Your task to perform on an android device: Open CNN.com Image 0: 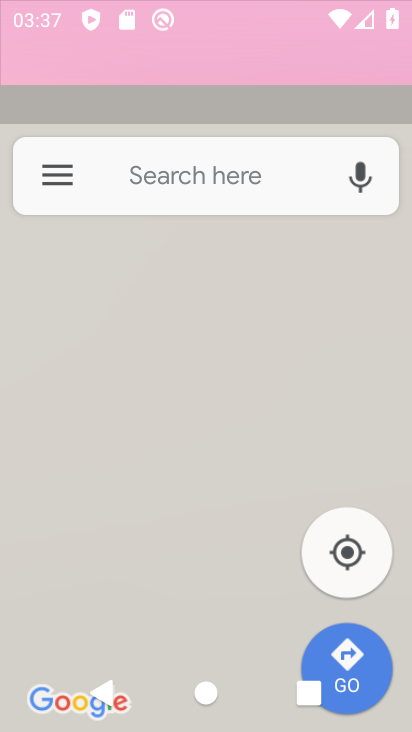
Step 0: press home button
Your task to perform on an android device: Open CNN.com Image 1: 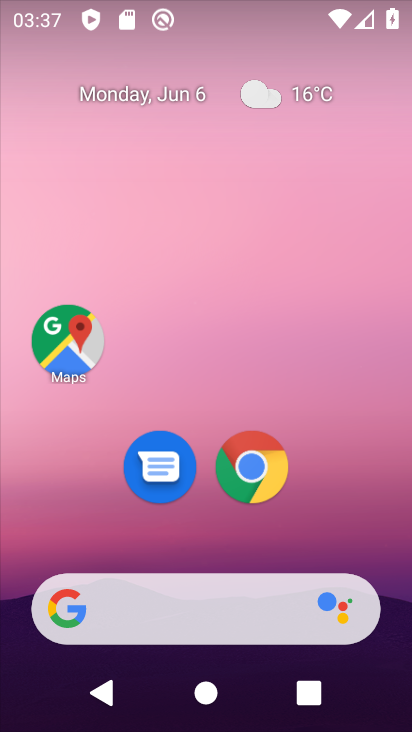
Step 1: click (251, 457)
Your task to perform on an android device: Open CNN.com Image 2: 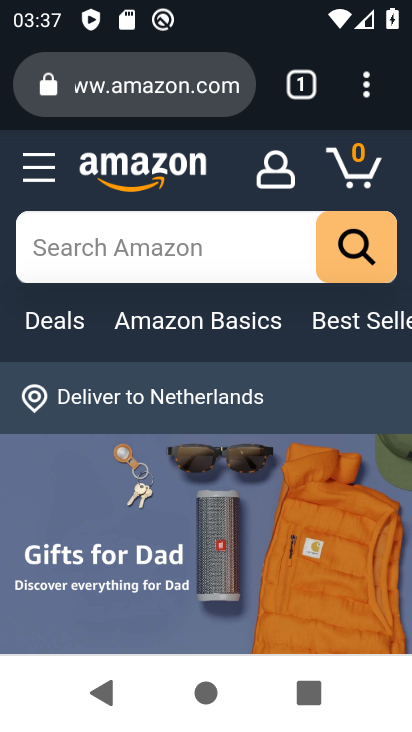
Step 2: click (303, 74)
Your task to perform on an android device: Open CNN.com Image 3: 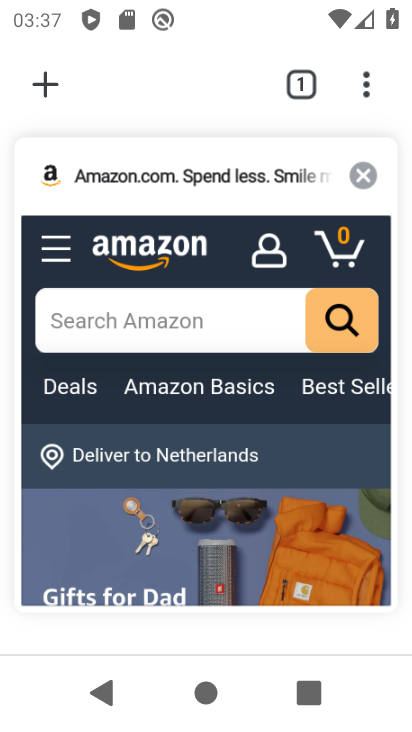
Step 3: click (365, 185)
Your task to perform on an android device: Open CNN.com Image 4: 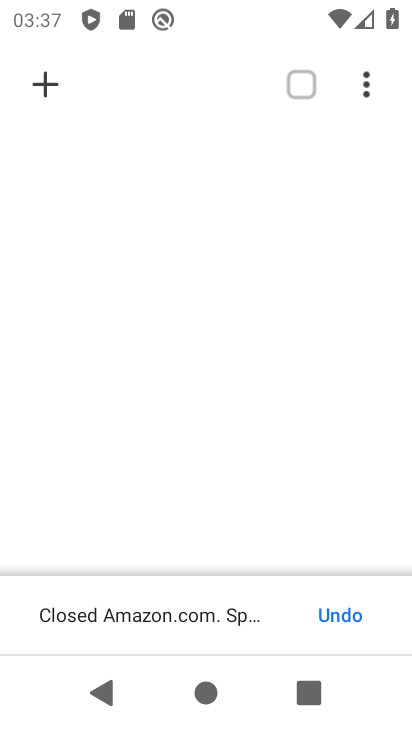
Step 4: click (56, 77)
Your task to perform on an android device: Open CNN.com Image 5: 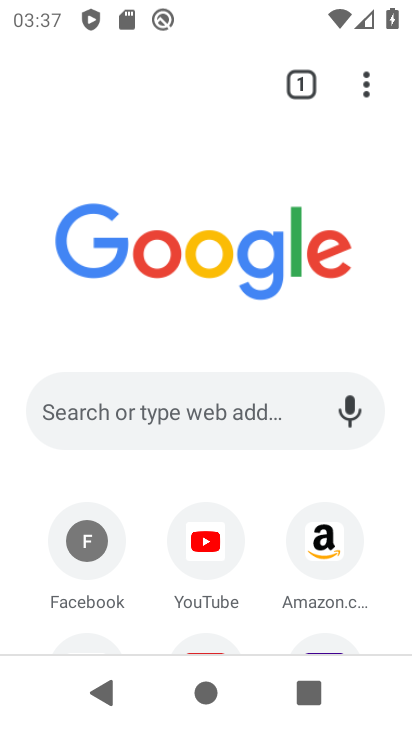
Step 5: click (152, 423)
Your task to perform on an android device: Open CNN.com Image 6: 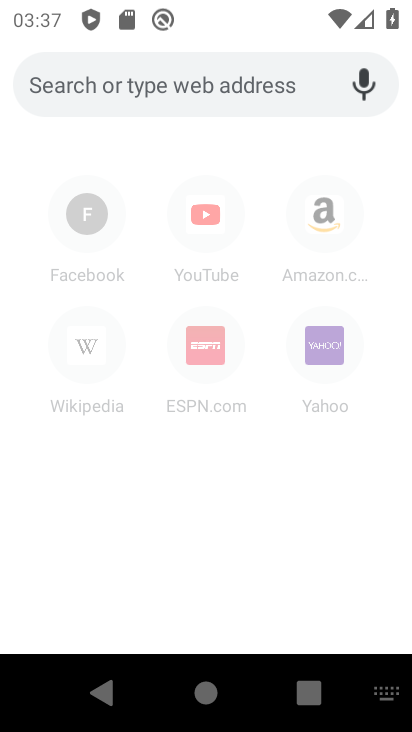
Step 6: type "cnn.com"
Your task to perform on an android device: Open CNN.com Image 7: 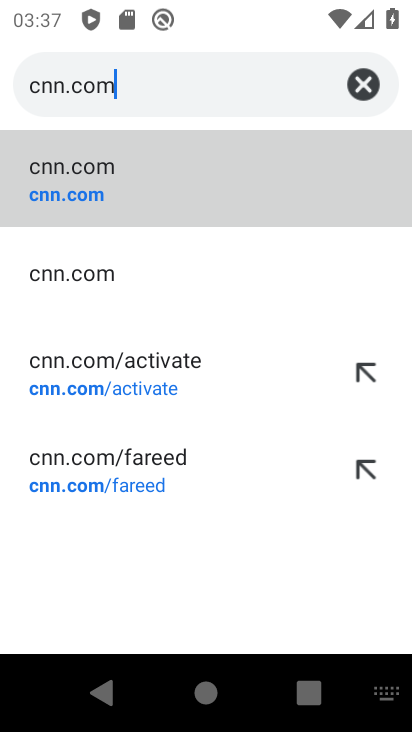
Step 7: click (84, 168)
Your task to perform on an android device: Open CNN.com Image 8: 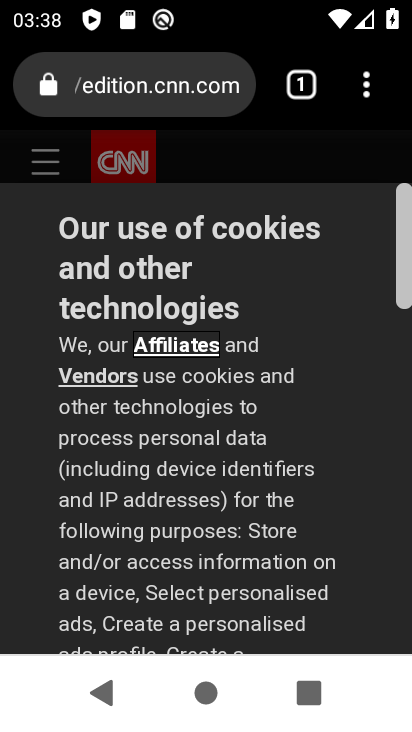
Step 8: drag from (257, 562) to (289, 110)
Your task to perform on an android device: Open CNN.com Image 9: 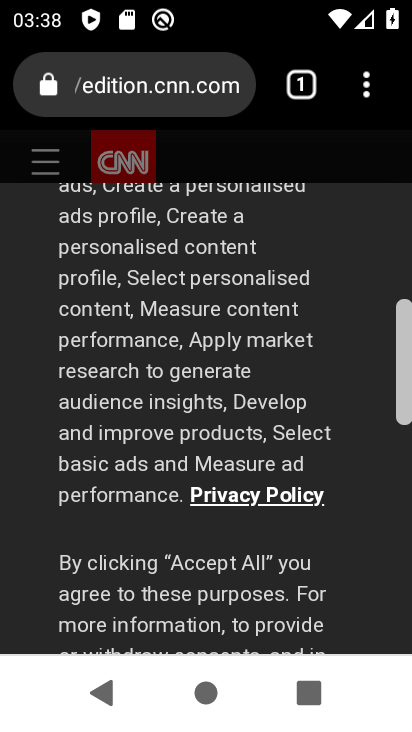
Step 9: drag from (217, 562) to (226, 127)
Your task to perform on an android device: Open CNN.com Image 10: 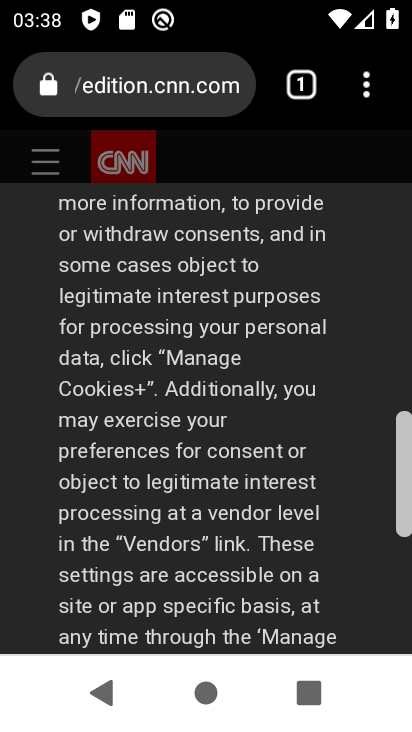
Step 10: drag from (225, 625) to (229, 212)
Your task to perform on an android device: Open CNN.com Image 11: 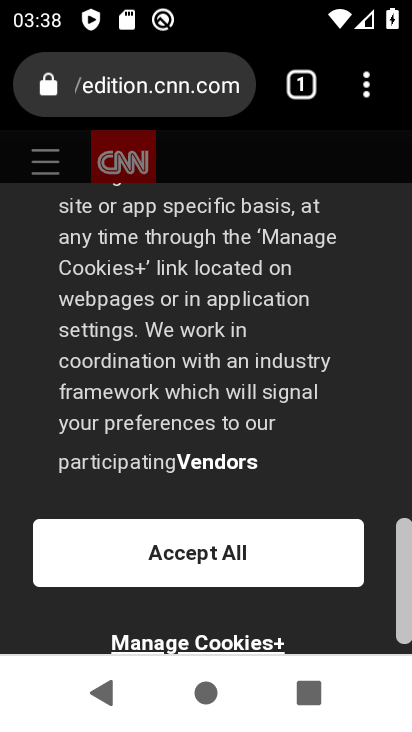
Step 11: click (193, 543)
Your task to perform on an android device: Open CNN.com Image 12: 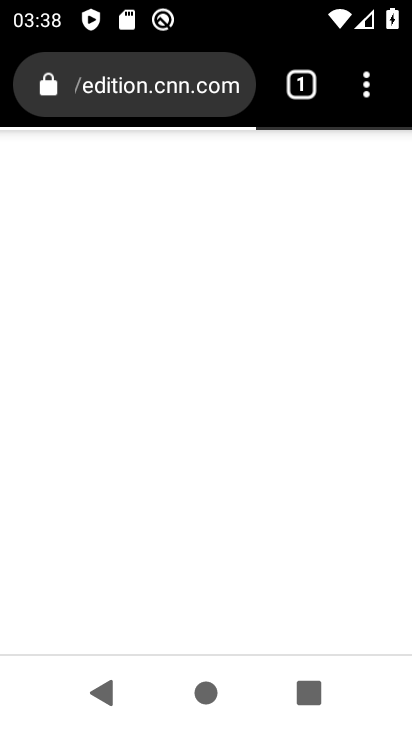
Step 12: task complete